Your task to perform on an android device: snooze an email in the gmail app Image 0: 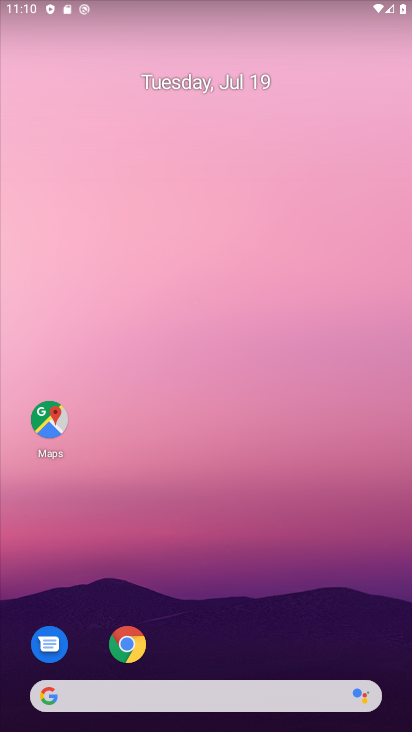
Step 0: press home button
Your task to perform on an android device: snooze an email in the gmail app Image 1: 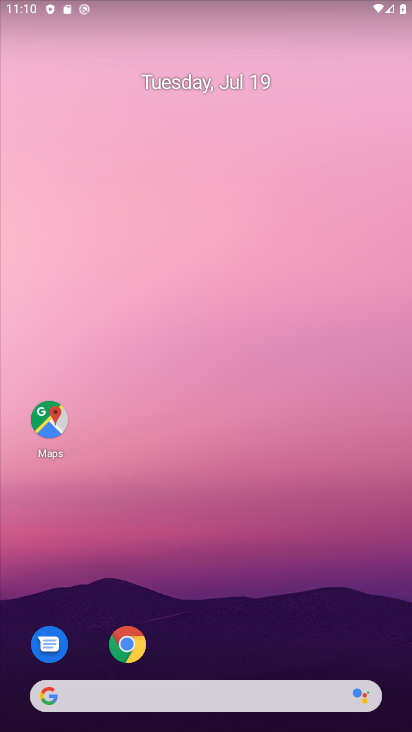
Step 1: press home button
Your task to perform on an android device: snooze an email in the gmail app Image 2: 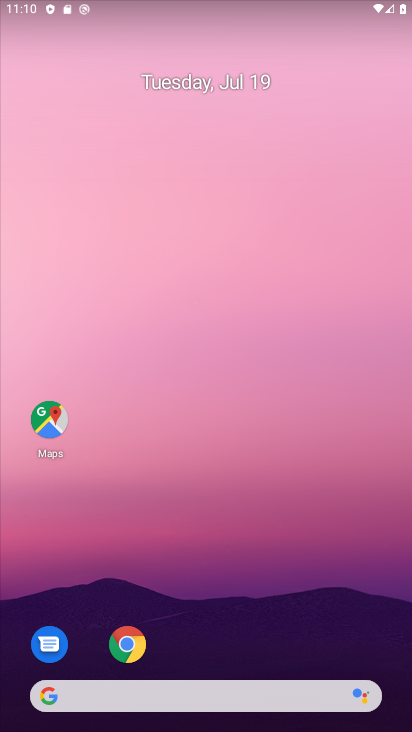
Step 2: drag from (187, 693) to (239, 129)
Your task to perform on an android device: snooze an email in the gmail app Image 3: 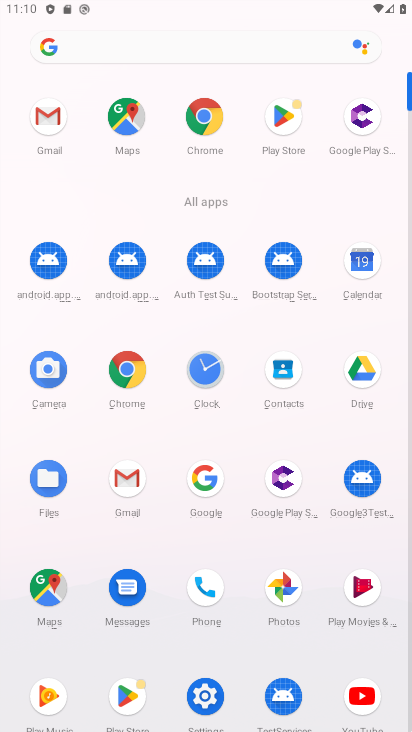
Step 3: click (238, 127)
Your task to perform on an android device: snooze an email in the gmail app Image 4: 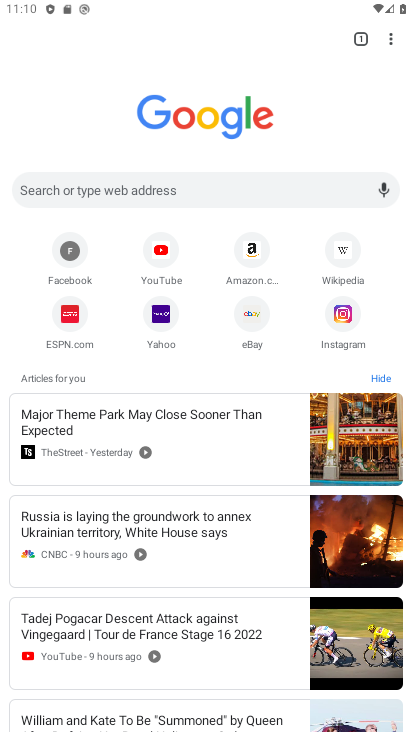
Step 4: press back button
Your task to perform on an android device: snooze an email in the gmail app Image 5: 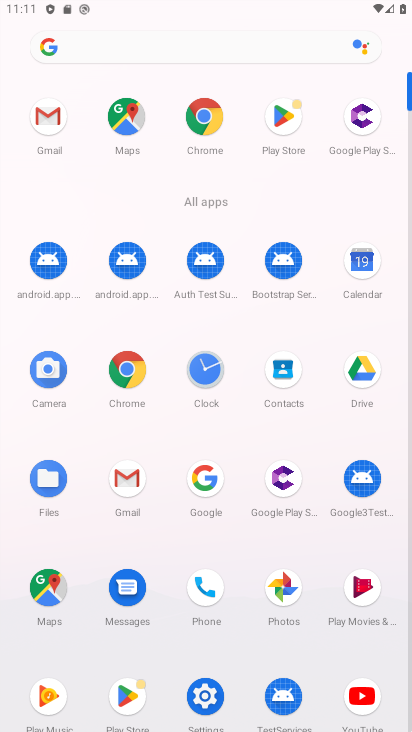
Step 5: click (56, 115)
Your task to perform on an android device: snooze an email in the gmail app Image 6: 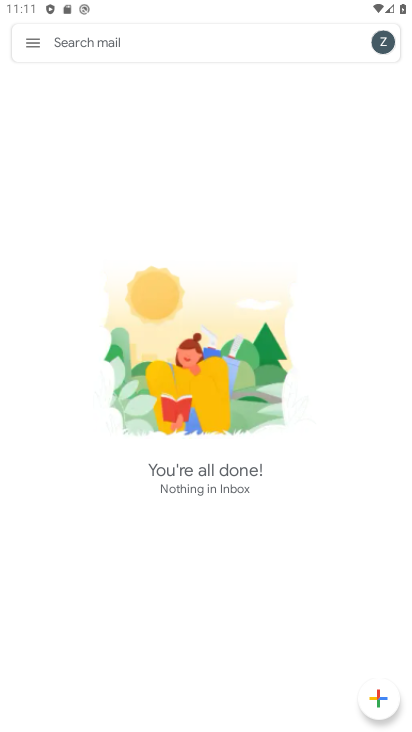
Step 6: task complete